Your task to perform on an android device: clear all cookies in the chrome app Image 0: 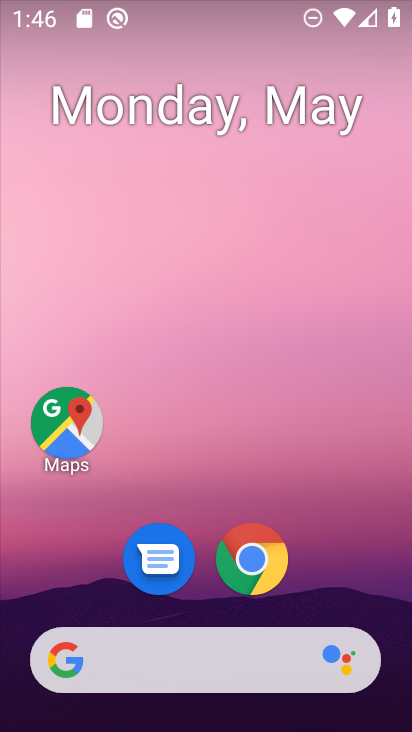
Step 0: click (268, 587)
Your task to perform on an android device: clear all cookies in the chrome app Image 1: 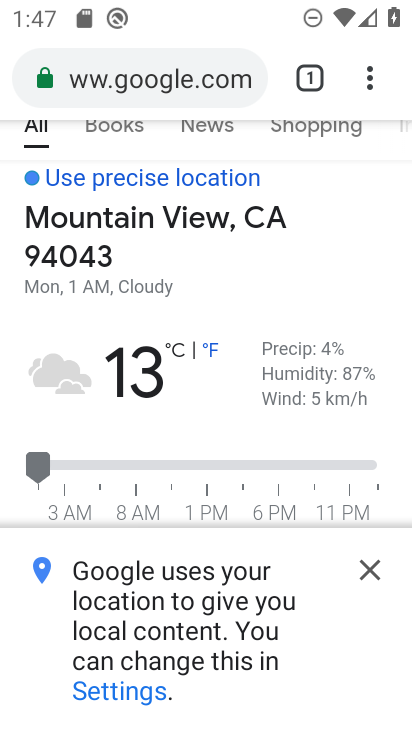
Step 1: drag from (366, 76) to (146, 589)
Your task to perform on an android device: clear all cookies in the chrome app Image 2: 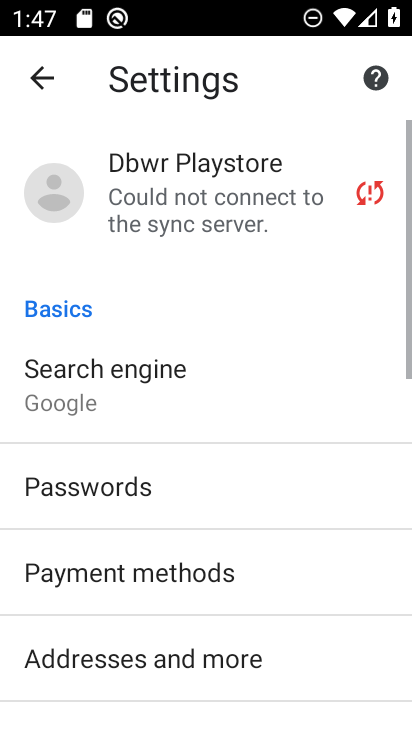
Step 2: drag from (146, 567) to (102, 196)
Your task to perform on an android device: clear all cookies in the chrome app Image 3: 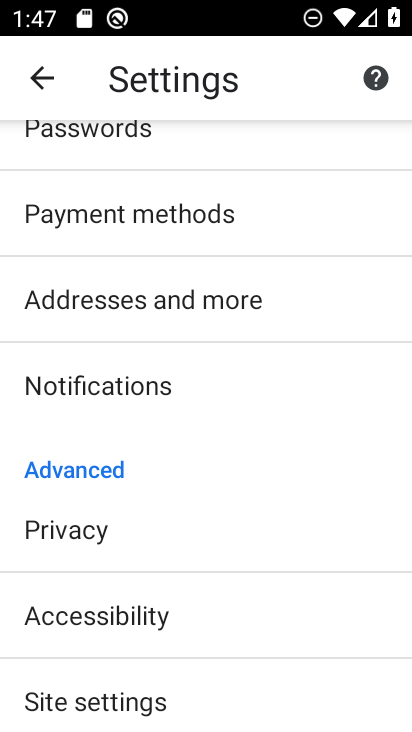
Step 3: click (146, 533)
Your task to perform on an android device: clear all cookies in the chrome app Image 4: 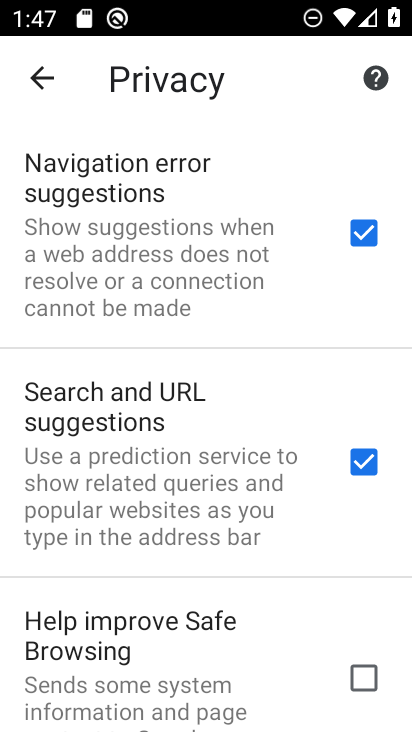
Step 4: drag from (246, 651) to (211, 79)
Your task to perform on an android device: clear all cookies in the chrome app Image 5: 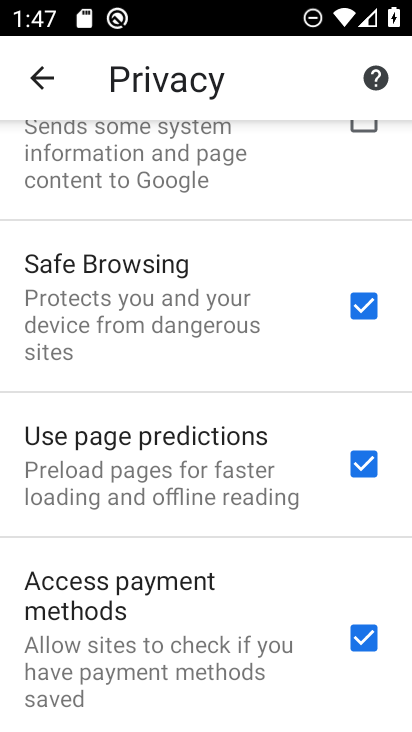
Step 5: drag from (205, 540) to (211, 242)
Your task to perform on an android device: clear all cookies in the chrome app Image 6: 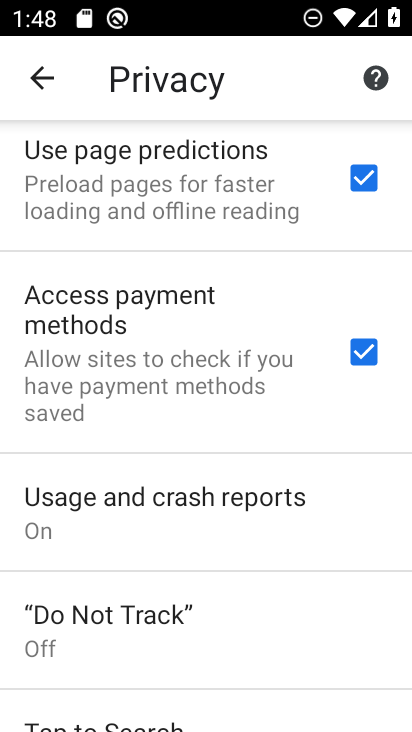
Step 6: drag from (239, 617) to (242, 254)
Your task to perform on an android device: clear all cookies in the chrome app Image 7: 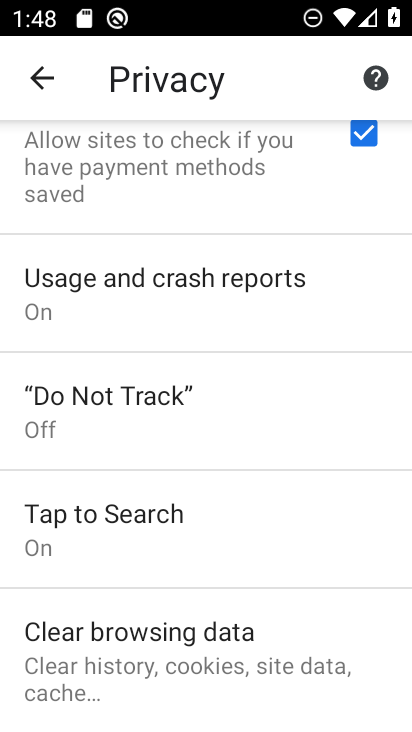
Step 7: click (196, 675)
Your task to perform on an android device: clear all cookies in the chrome app Image 8: 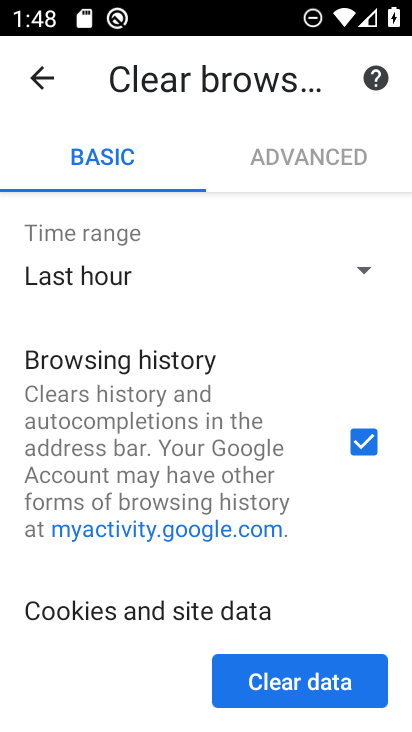
Step 8: click (304, 669)
Your task to perform on an android device: clear all cookies in the chrome app Image 9: 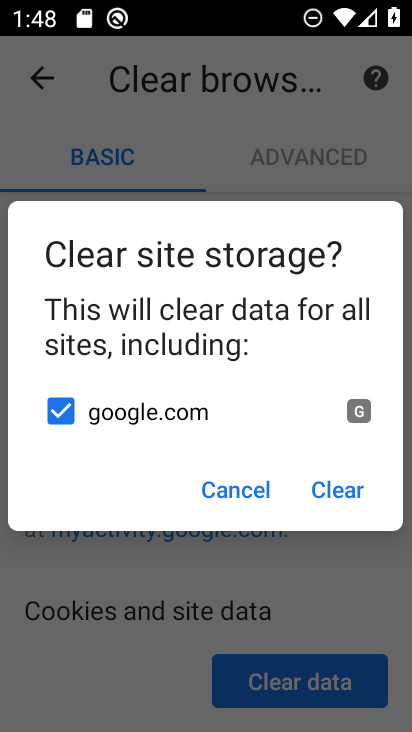
Step 9: click (331, 493)
Your task to perform on an android device: clear all cookies in the chrome app Image 10: 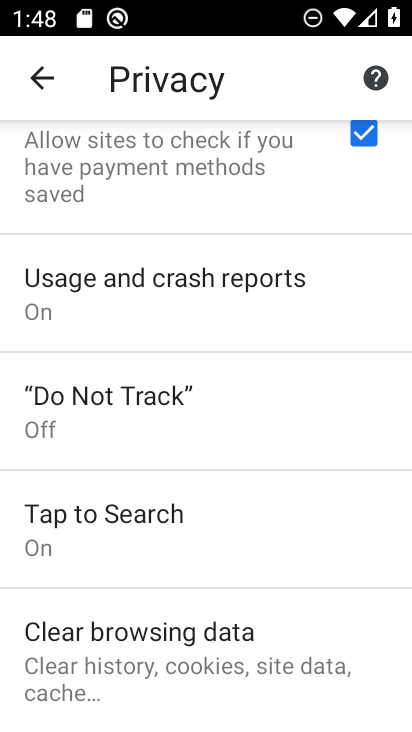
Step 10: task complete